Your task to perform on an android device: check out phone information Image 0: 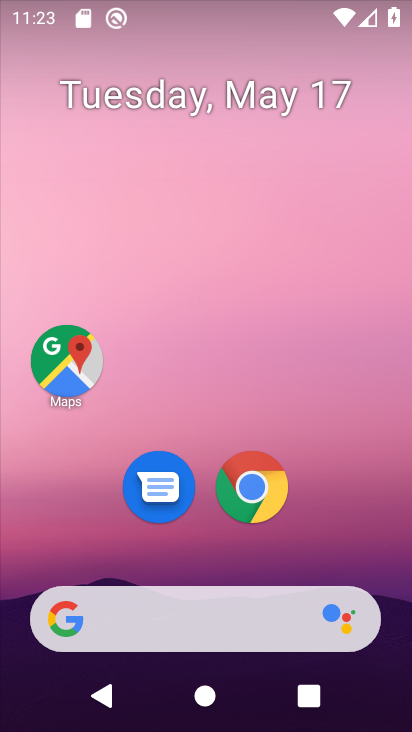
Step 0: drag from (339, 553) to (309, 146)
Your task to perform on an android device: check out phone information Image 1: 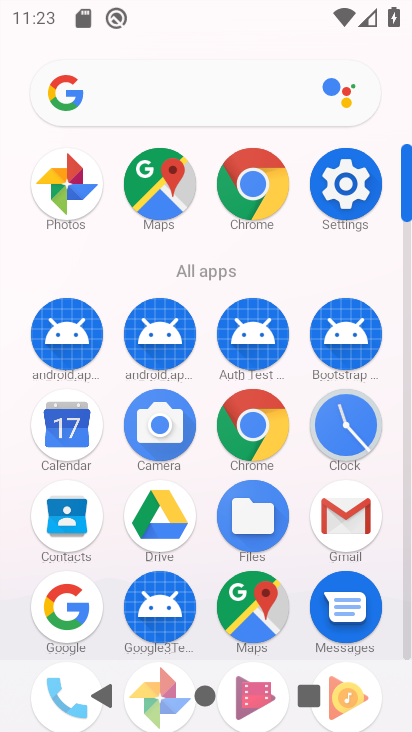
Step 1: click (411, 655)
Your task to perform on an android device: check out phone information Image 2: 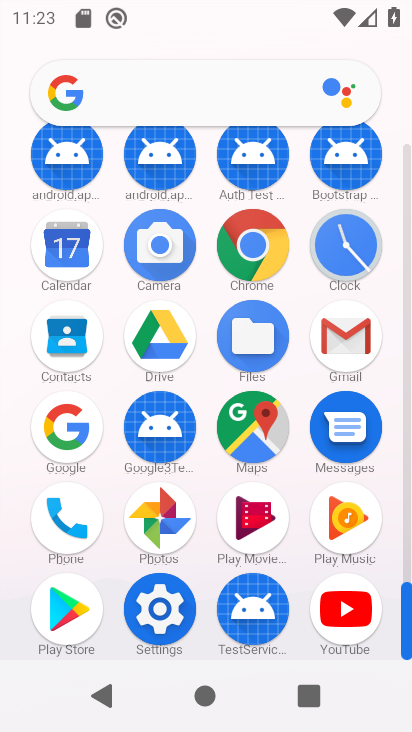
Step 2: click (163, 596)
Your task to perform on an android device: check out phone information Image 3: 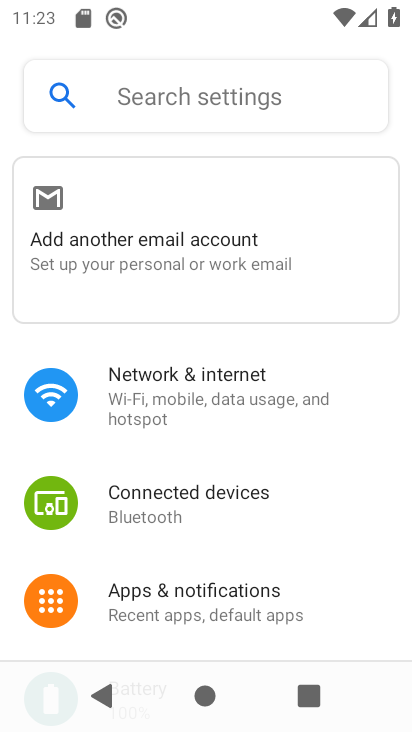
Step 3: drag from (271, 626) to (219, 100)
Your task to perform on an android device: check out phone information Image 4: 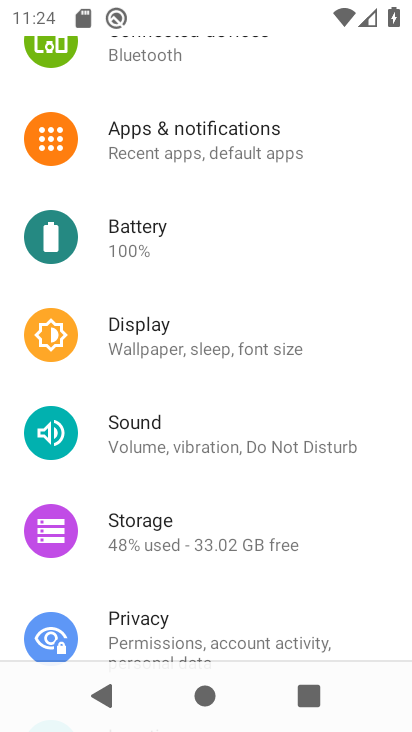
Step 4: drag from (318, 602) to (271, 220)
Your task to perform on an android device: check out phone information Image 5: 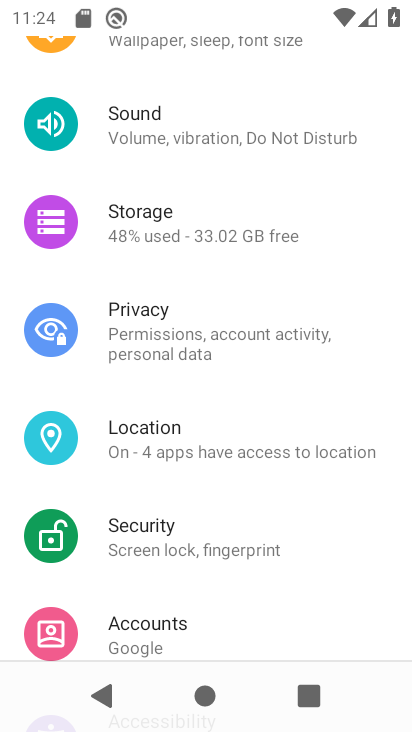
Step 5: drag from (326, 596) to (271, 268)
Your task to perform on an android device: check out phone information Image 6: 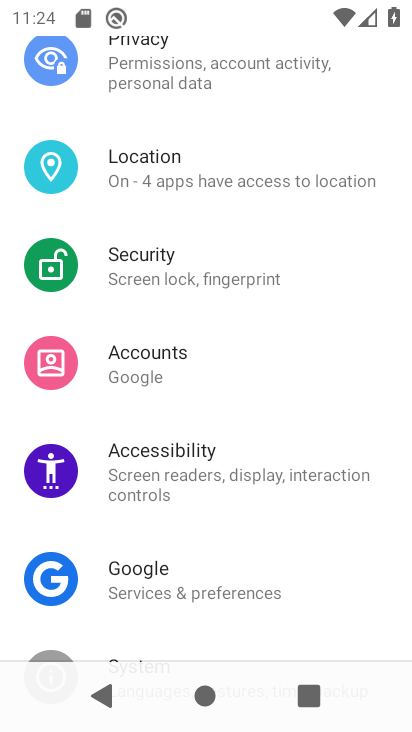
Step 6: drag from (314, 636) to (227, 101)
Your task to perform on an android device: check out phone information Image 7: 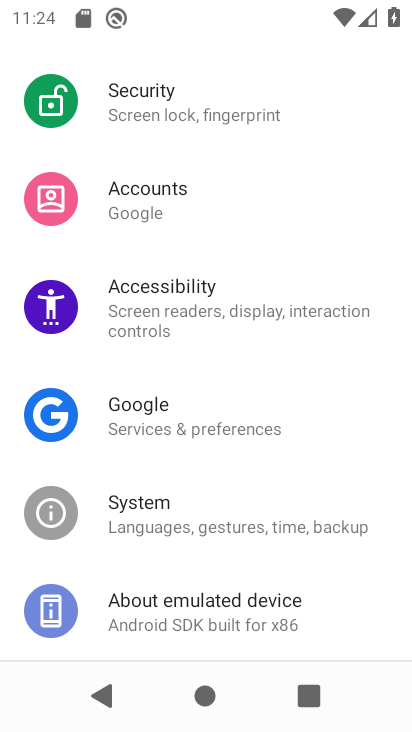
Step 7: click (262, 602)
Your task to perform on an android device: check out phone information Image 8: 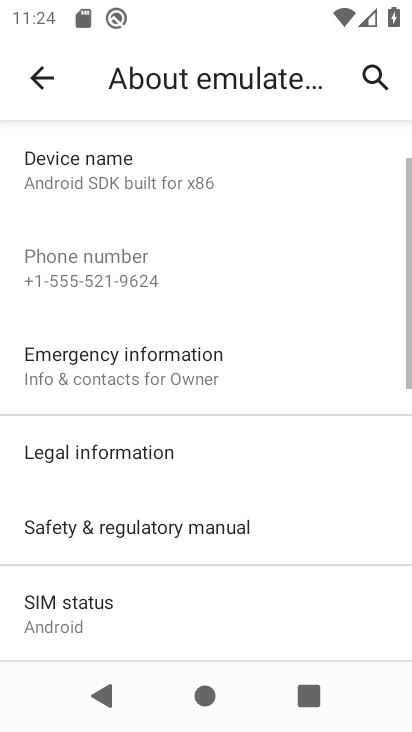
Step 8: task complete